Your task to perform on an android device: change your default location settings in chrome Image 0: 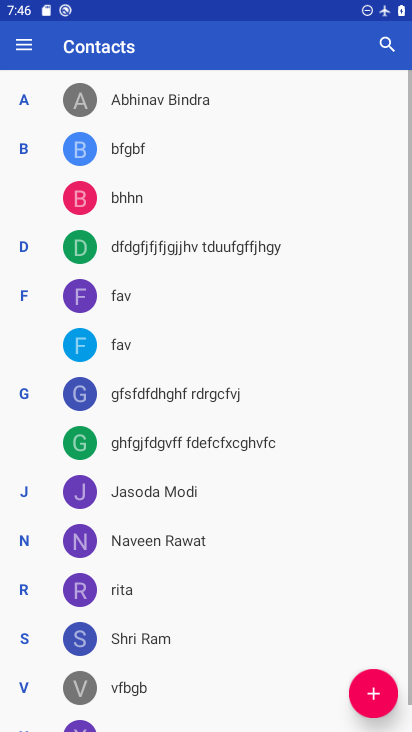
Step 0: press home button
Your task to perform on an android device: change your default location settings in chrome Image 1: 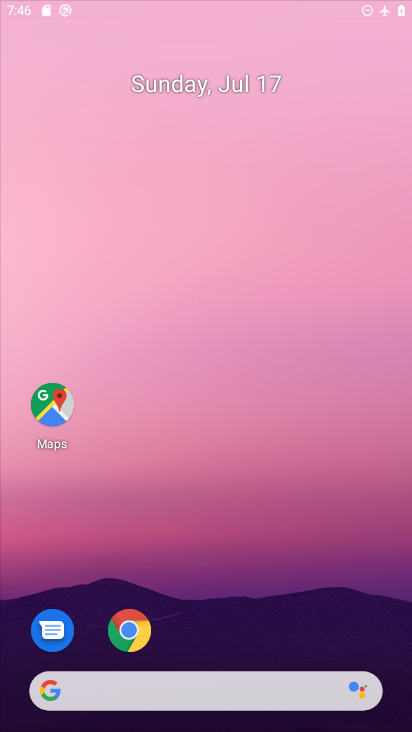
Step 1: drag from (380, 632) to (255, 71)
Your task to perform on an android device: change your default location settings in chrome Image 2: 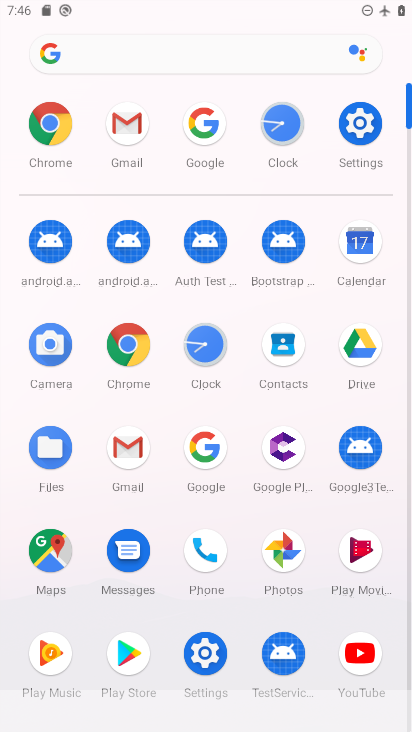
Step 2: click (126, 359)
Your task to perform on an android device: change your default location settings in chrome Image 3: 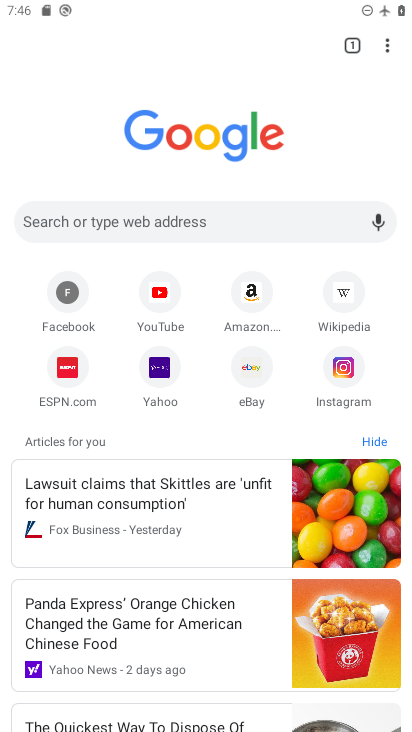
Step 3: click (391, 45)
Your task to perform on an android device: change your default location settings in chrome Image 4: 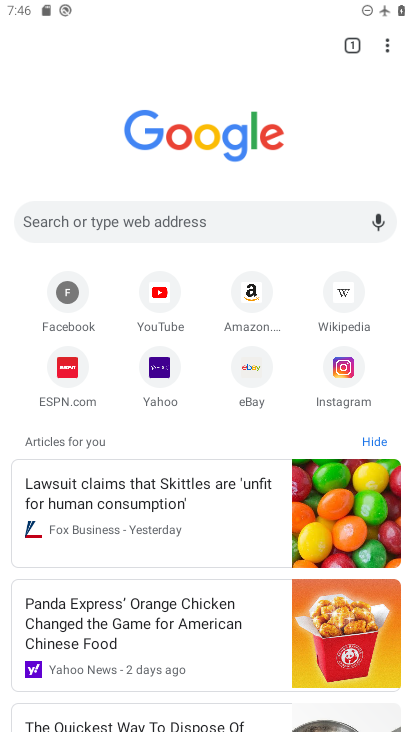
Step 4: click (390, 46)
Your task to perform on an android device: change your default location settings in chrome Image 5: 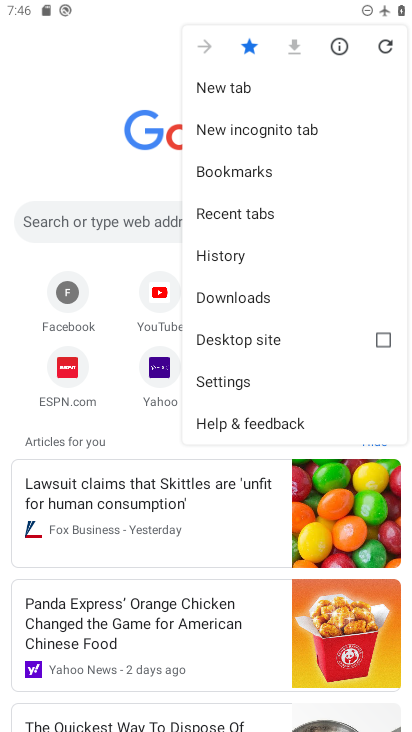
Step 5: click (210, 388)
Your task to perform on an android device: change your default location settings in chrome Image 6: 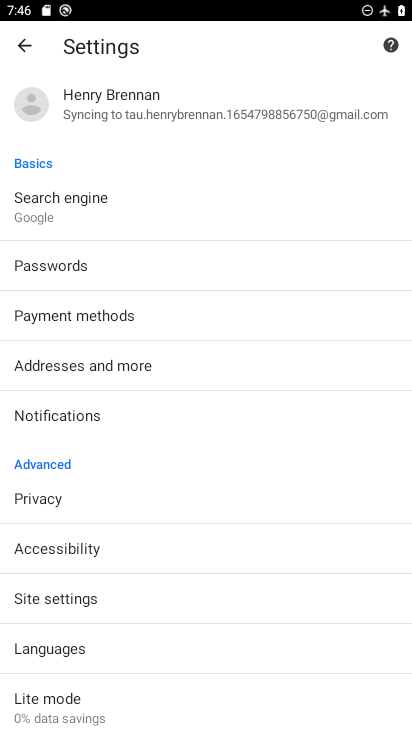
Step 6: click (76, 201)
Your task to perform on an android device: change your default location settings in chrome Image 7: 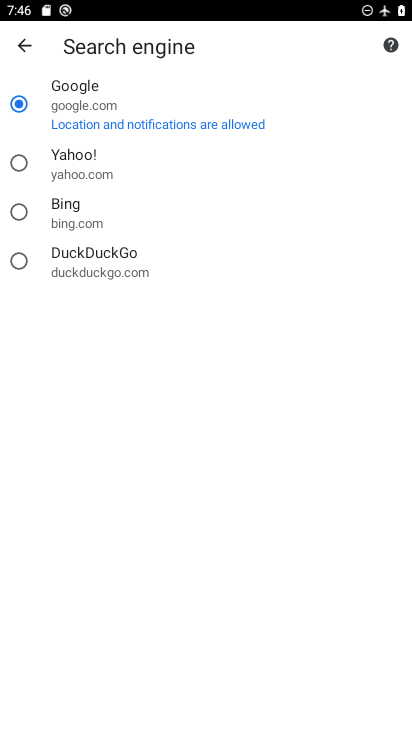
Step 7: click (63, 204)
Your task to perform on an android device: change your default location settings in chrome Image 8: 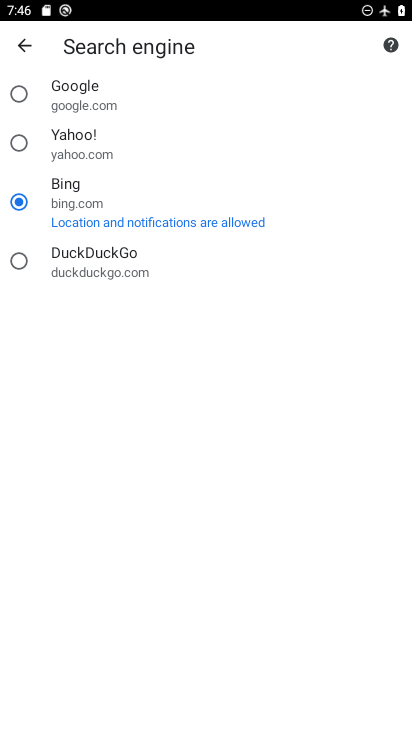
Step 8: task complete